Your task to perform on an android device: Go to CNN.com Image 0: 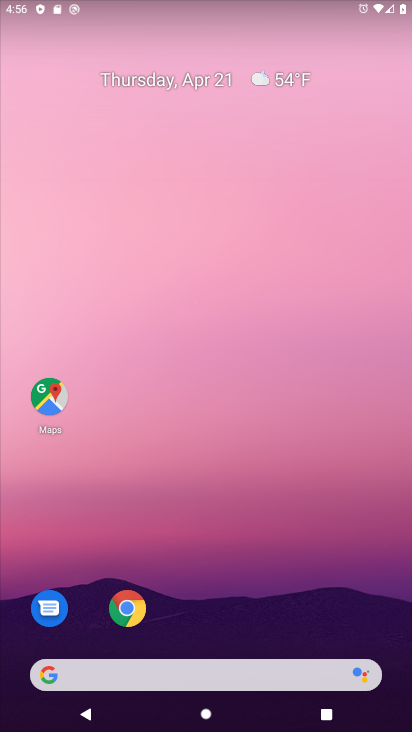
Step 0: click (122, 610)
Your task to perform on an android device: Go to CNN.com Image 1: 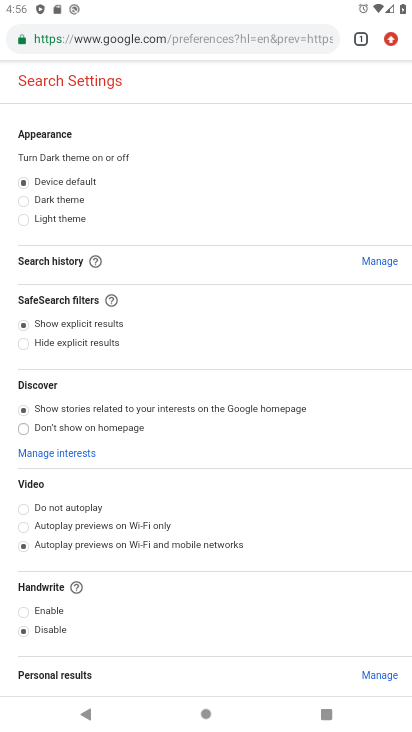
Step 1: click (204, 43)
Your task to perform on an android device: Go to CNN.com Image 2: 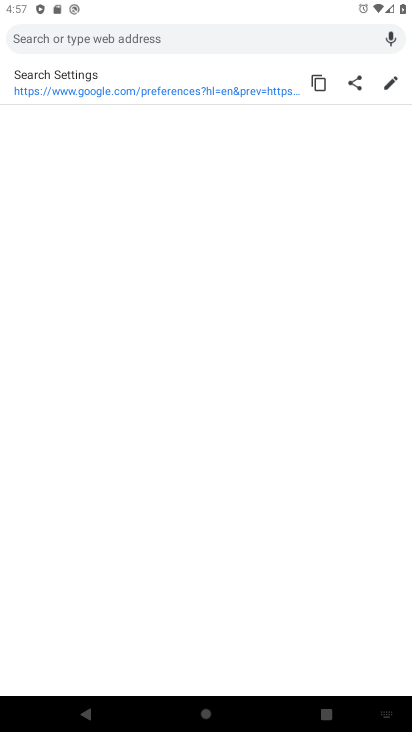
Step 2: type "cnn.com"
Your task to perform on an android device: Go to CNN.com Image 3: 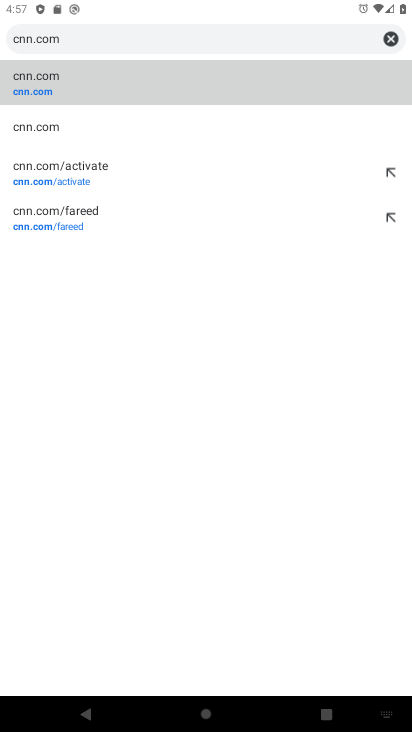
Step 3: click (239, 83)
Your task to perform on an android device: Go to CNN.com Image 4: 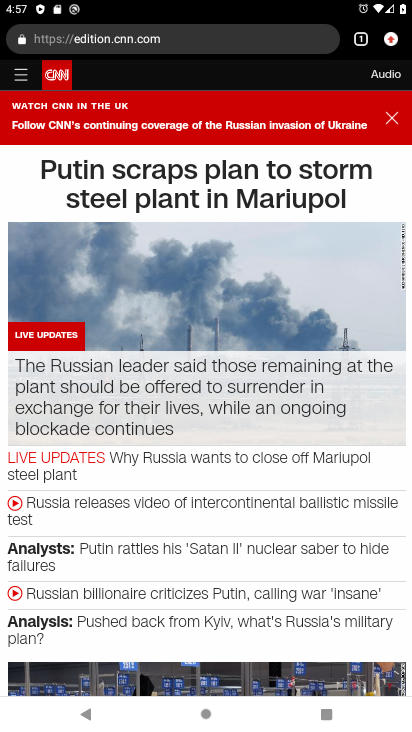
Step 4: task complete